Your task to perform on an android device: Open Yahoo.com Image 0: 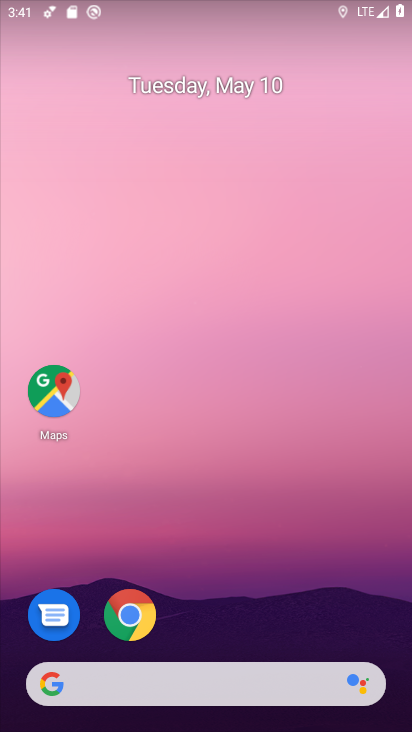
Step 0: drag from (243, 585) to (275, 107)
Your task to perform on an android device: Open Yahoo.com Image 1: 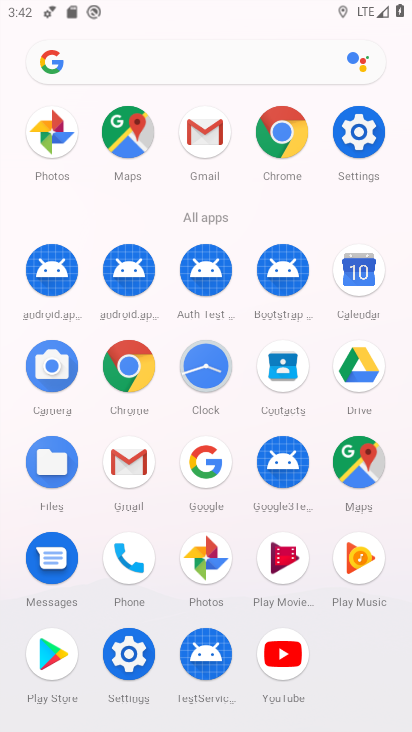
Step 1: click (112, 359)
Your task to perform on an android device: Open Yahoo.com Image 2: 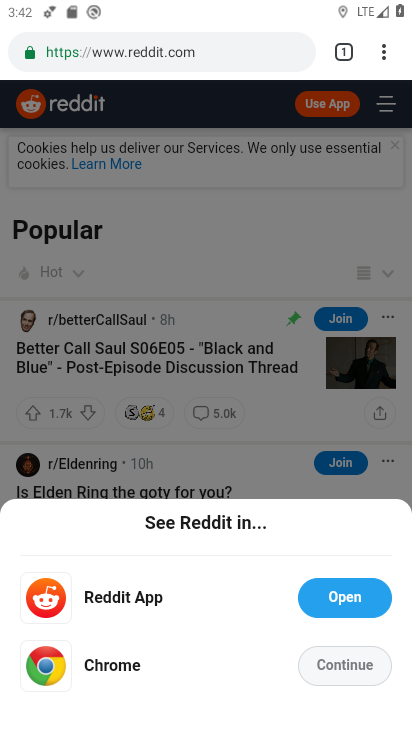
Step 2: click (215, 445)
Your task to perform on an android device: Open Yahoo.com Image 3: 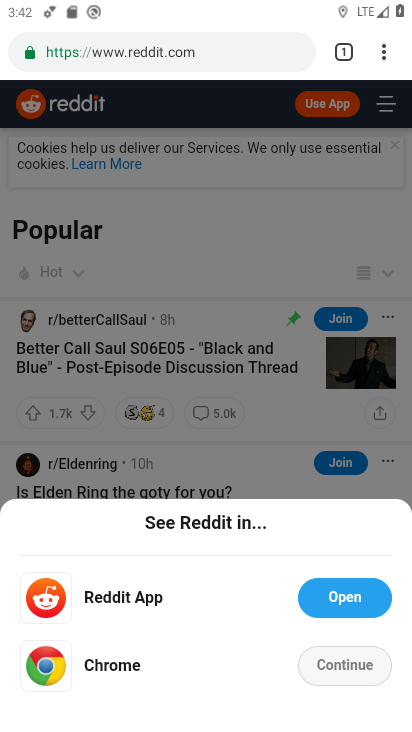
Step 3: click (250, 57)
Your task to perform on an android device: Open Yahoo.com Image 4: 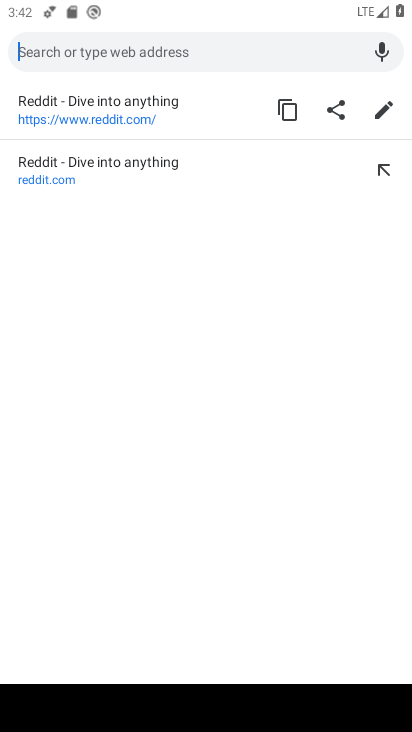
Step 4: type "yahoo.com"
Your task to perform on an android device: Open Yahoo.com Image 5: 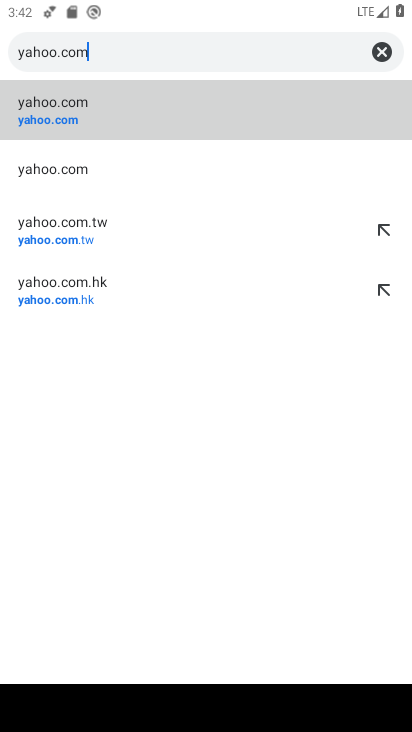
Step 5: click (298, 115)
Your task to perform on an android device: Open Yahoo.com Image 6: 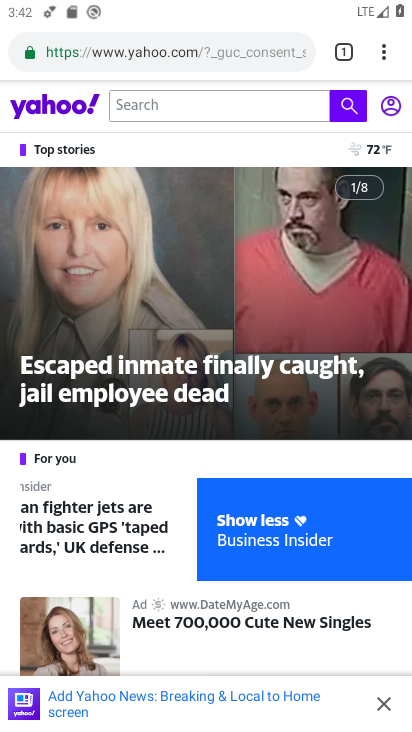
Step 6: task complete